Your task to perform on an android device: What's on my calendar tomorrow? Image 0: 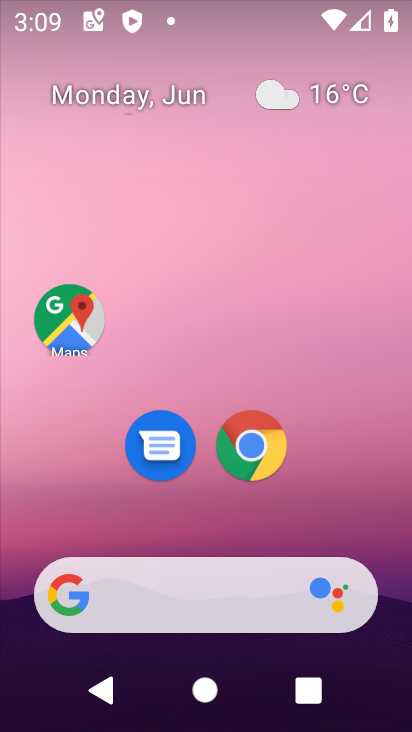
Step 0: click (356, 307)
Your task to perform on an android device: What's on my calendar tomorrow? Image 1: 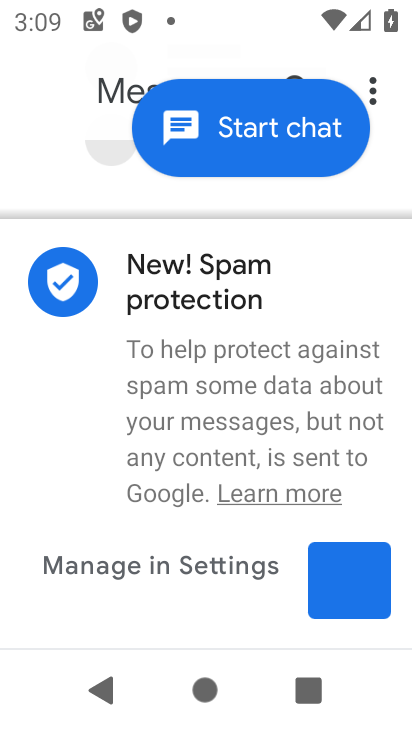
Step 1: press home button
Your task to perform on an android device: What's on my calendar tomorrow? Image 2: 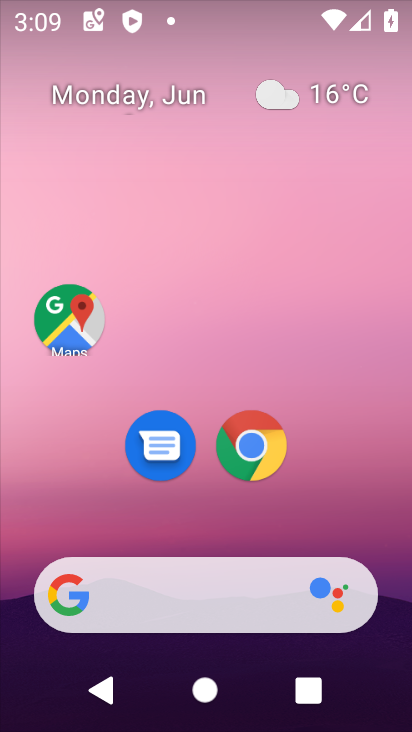
Step 2: drag from (275, 232) to (264, 171)
Your task to perform on an android device: What's on my calendar tomorrow? Image 3: 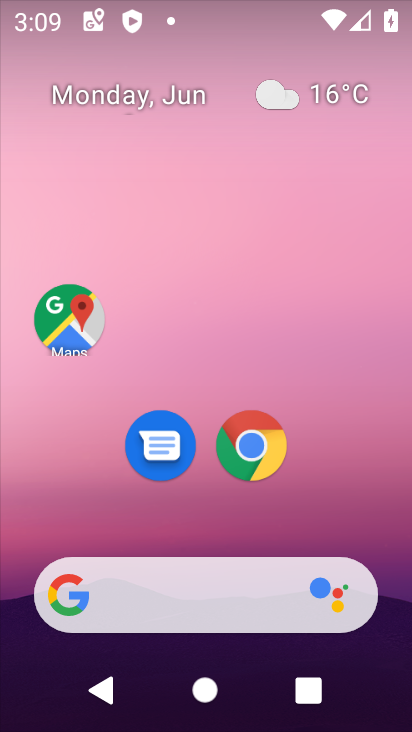
Step 3: drag from (131, 517) to (131, 231)
Your task to perform on an android device: What's on my calendar tomorrow? Image 4: 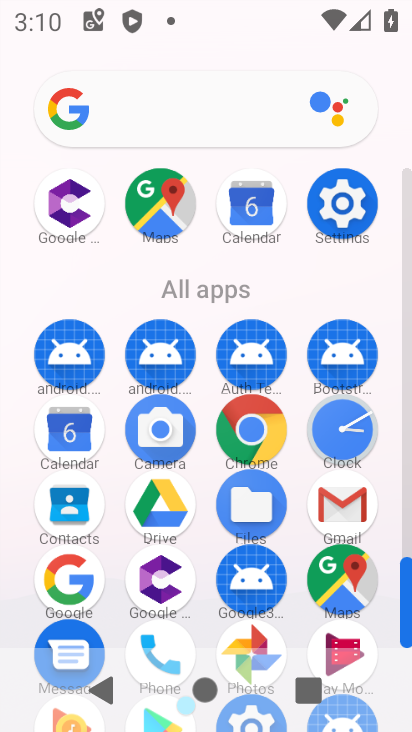
Step 4: click (81, 440)
Your task to perform on an android device: What's on my calendar tomorrow? Image 5: 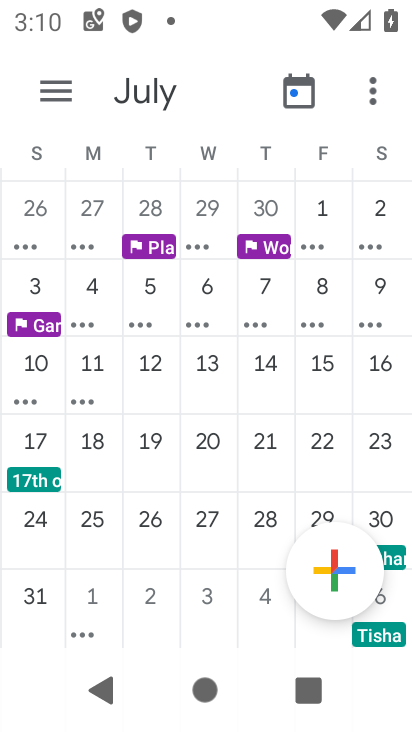
Step 5: drag from (89, 252) to (333, 225)
Your task to perform on an android device: What's on my calendar tomorrow? Image 6: 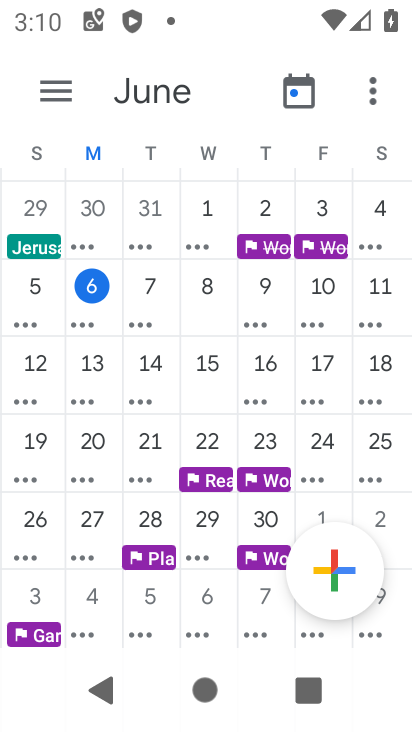
Step 6: click (132, 289)
Your task to perform on an android device: What's on my calendar tomorrow? Image 7: 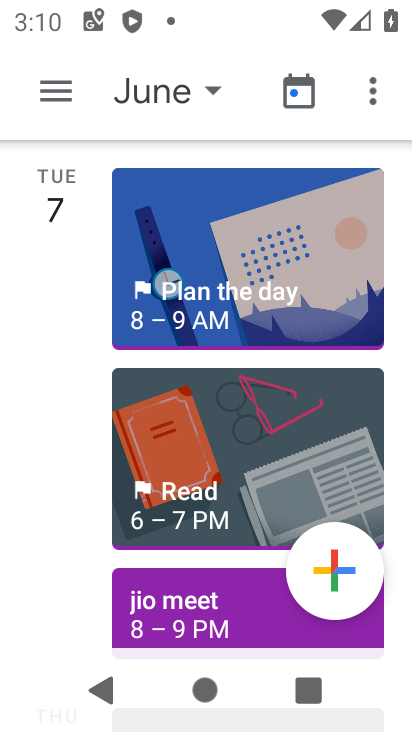
Step 7: task complete